Your task to perform on an android device: Turn on the flashlight Image 0: 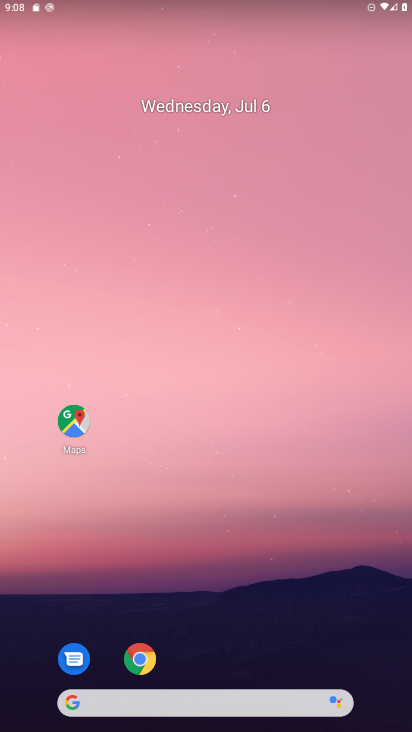
Step 0: drag from (217, 4) to (222, 418)
Your task to perform on an android device: Turn on the flashlight Image 1: 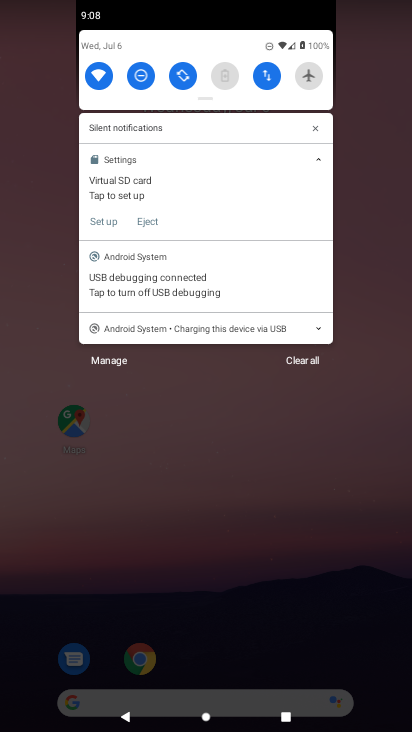
Step 1: drag from (203, 48) to (195, 303)
Your task to perform on an android device: Turn on the flashlight Image 2: 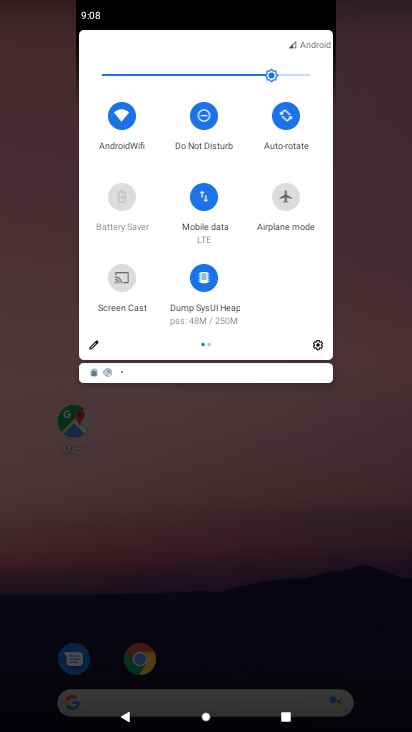
Step 2: click (103, 341)
Your task to perform on an android device: Turn on the flashlight Image 3: 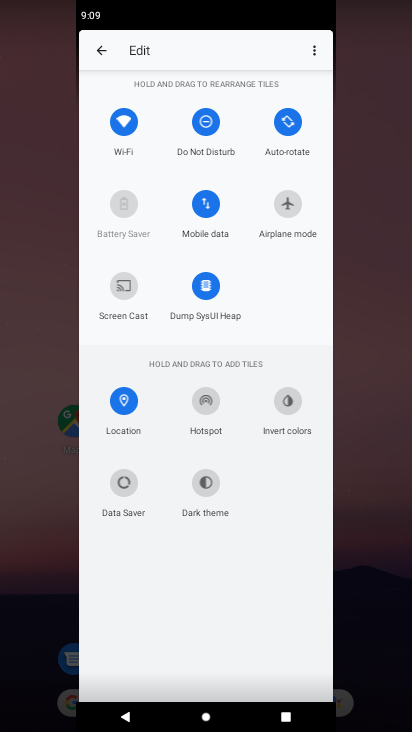
Step 3: task complete